Your task to perform on an android device: turn off smart reply in the gmail app Image 0: 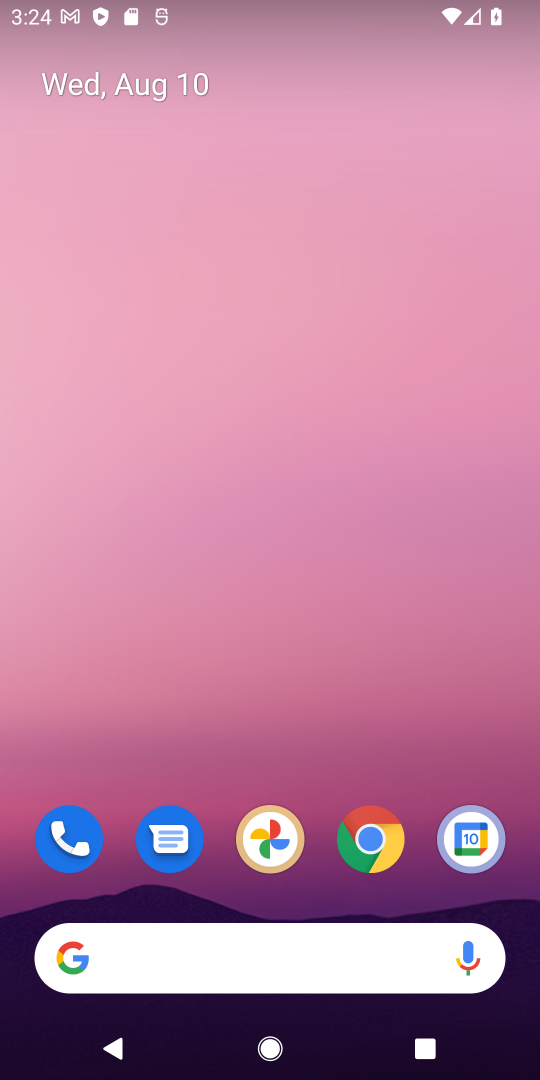
Step 0: drag from (264, 736) to (338, 0)
Your task to perform on an android device: turn off smart reply in the gmail app Image 1: 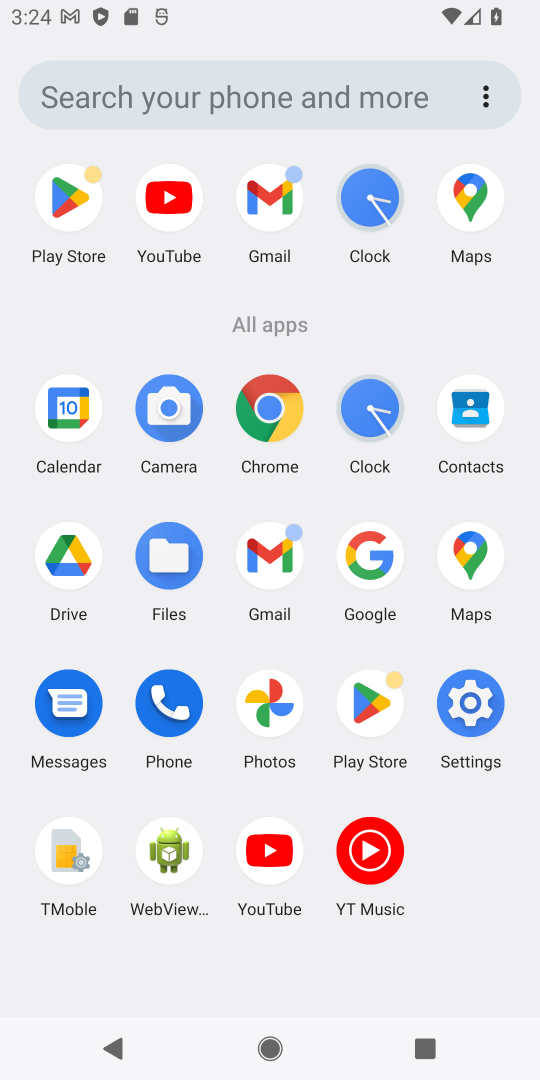
Step 1: click (269, 196)
Your task to perform on an android device: turn off smart reply in the gmail app Image 2: 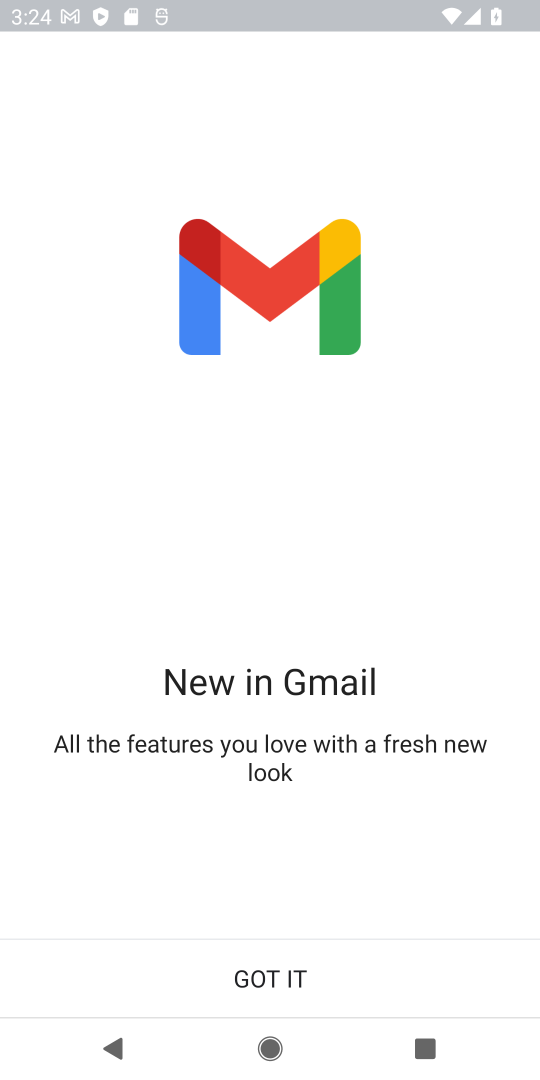
Step 2: click (267, 971)
Your task to perform on an android device: turn off smart reply in the gmail app Image 3: 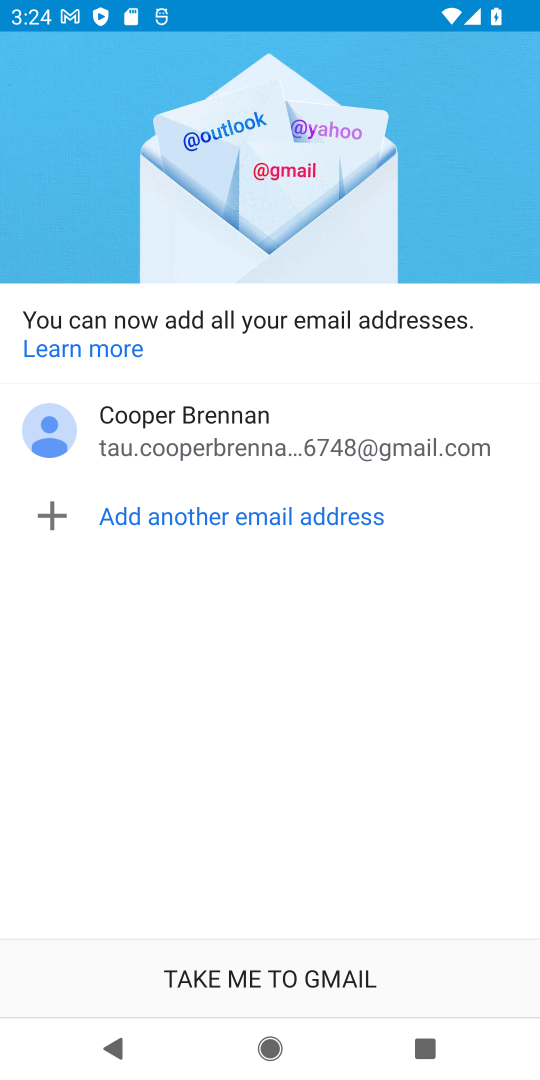
Step 3: click (267, 971)
Your task to perform on an android device: turn off smart reply in the gmail app Image 4: 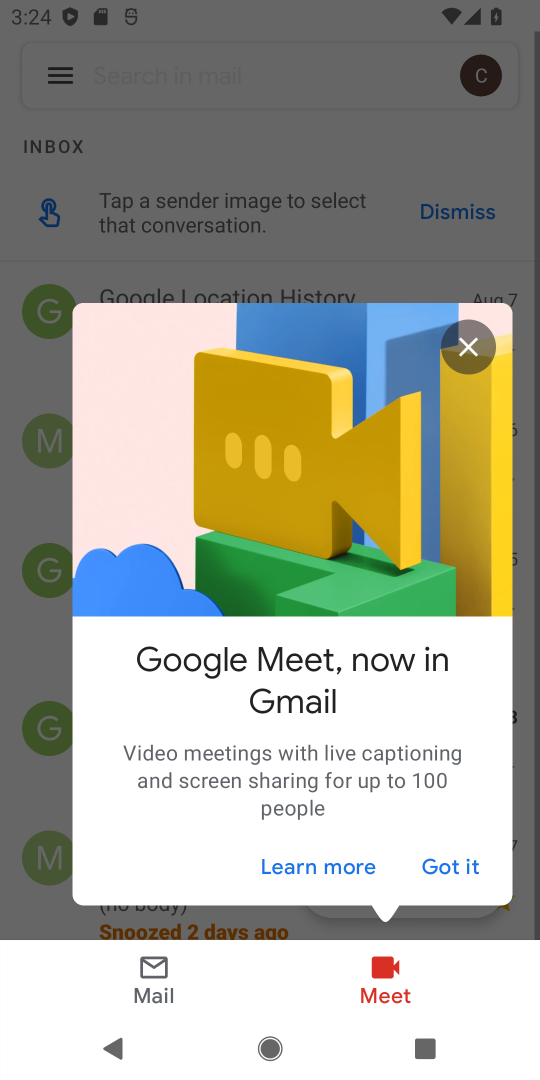
Step 4: click (442, 859)
Your task to perform on an android device: turn off smart reply in the gmail app Image 5: 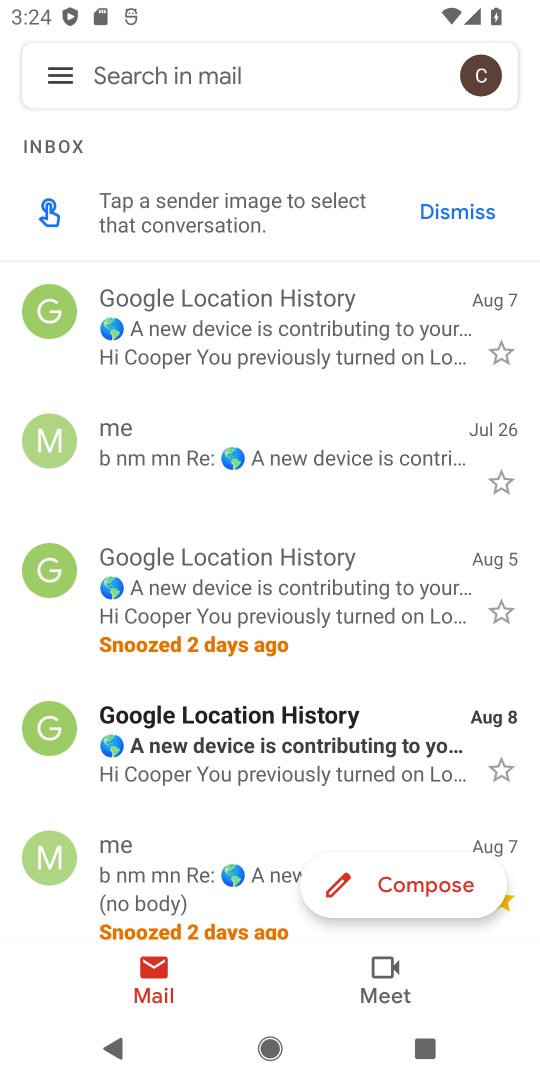
Step 5: click (62, 69)
Your task to perform on an android device: turn off smart reply in the gmail app Image 6: 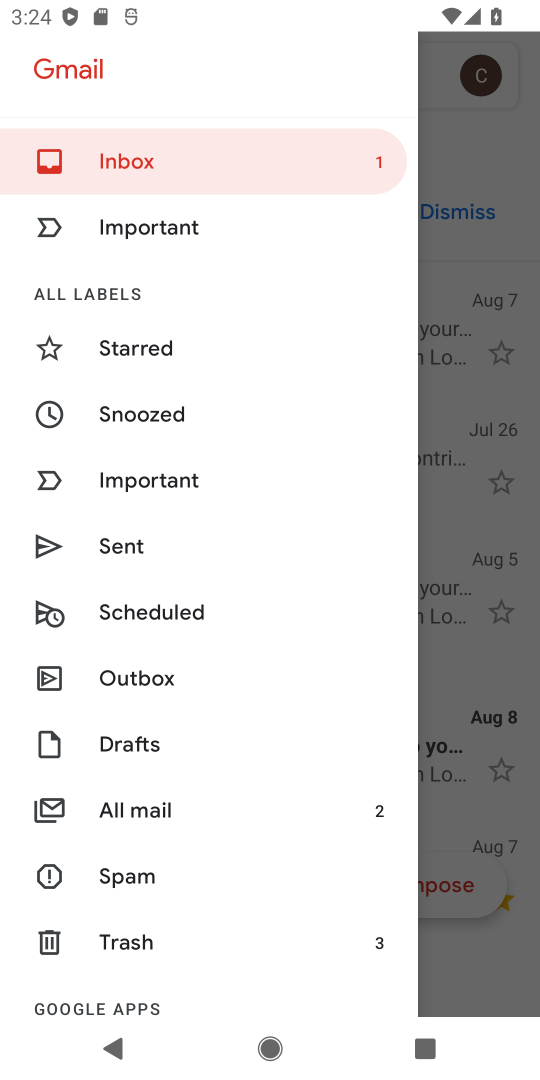
Step 6: drag from (210, 829) to (220, 220)
Your task to perform on an android device: turn off smart reply in the gmail app Image 7: 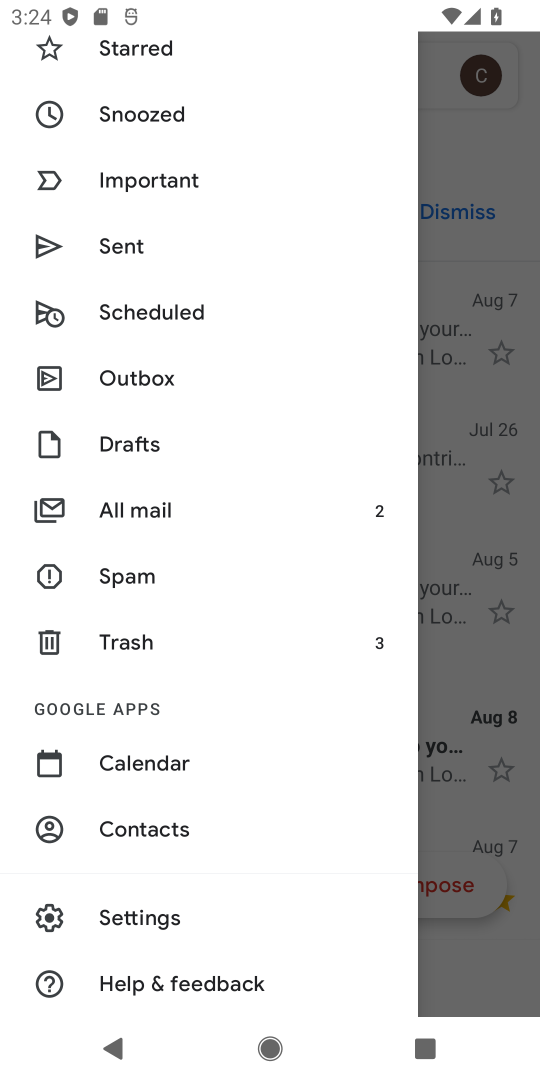
Step 7: click (155, 908)
Your task to perform on an android device: turn off smart reply in the gmail app Image 8: 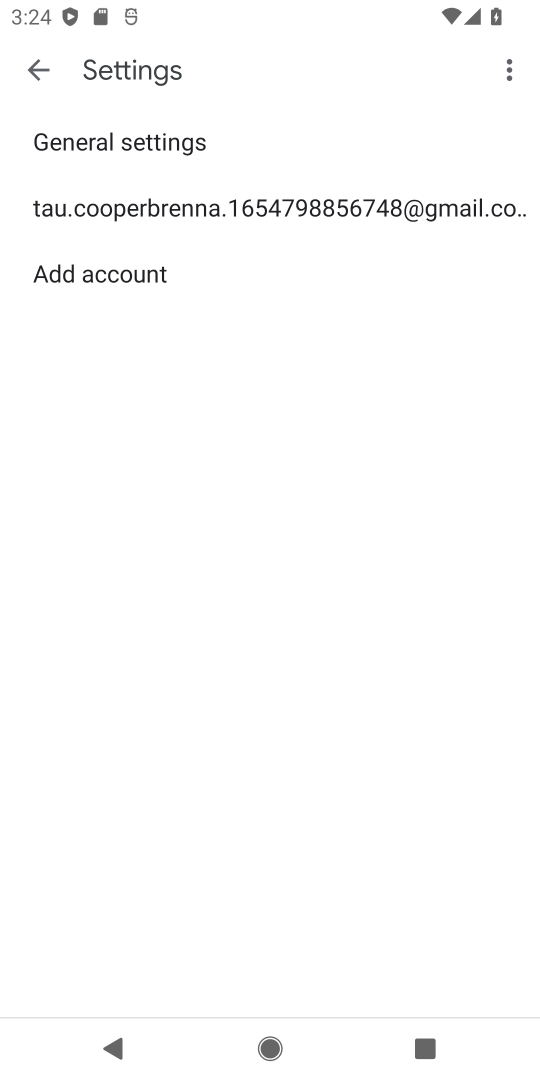
Step 8: click (345, 219)
Your task to perform on an android device: turn off smart reply in the gmail app Image 9: 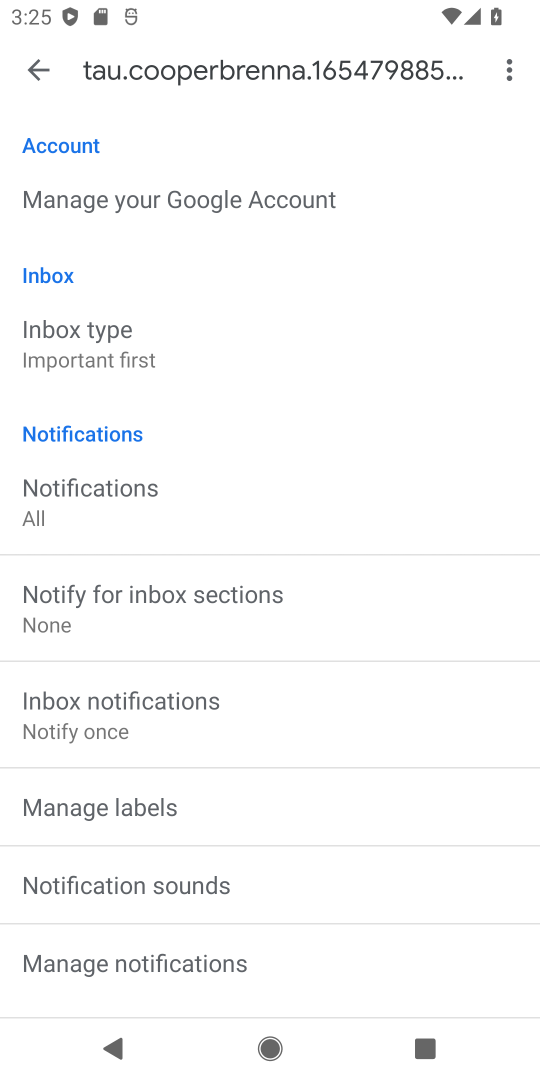
Step 9: drag from (301, 904) to (295, 1)
Your task to perform on an android device: turn off smart reply in the gmail app Image 10: 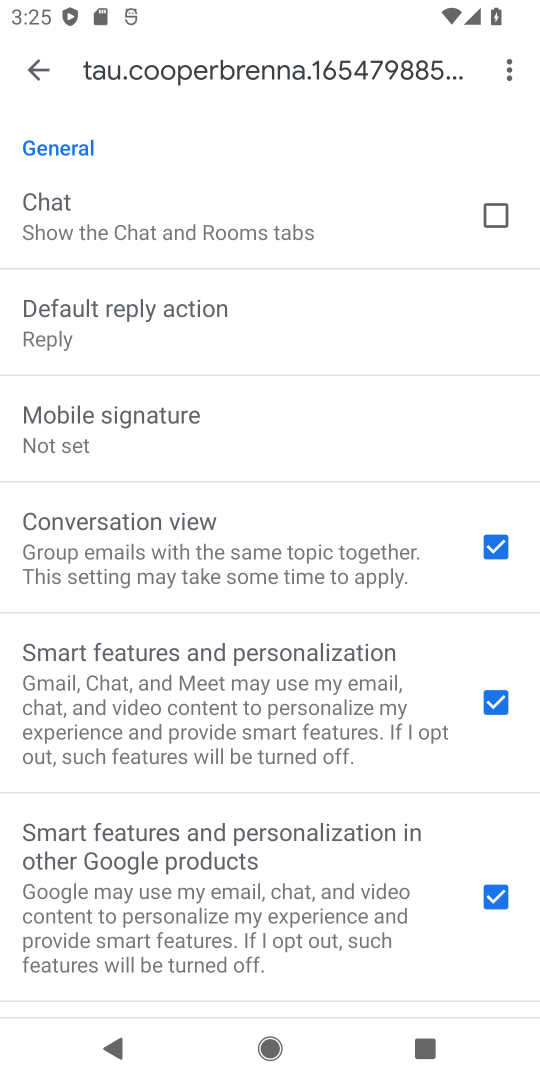
Step 10: drag from (272, 894) to (308, 288)
Your task to perform on an android device: turn off smart reply in the gmail app Image 11: 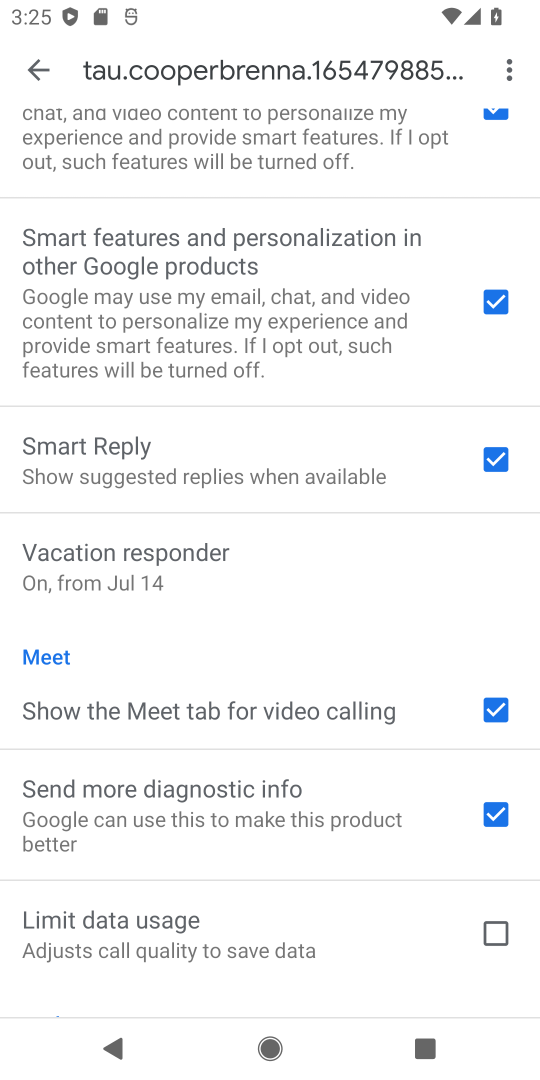
Step 11: click (489, 453)
Your task to perform on an android device: turn off smart reply in the gmail app Image 12: 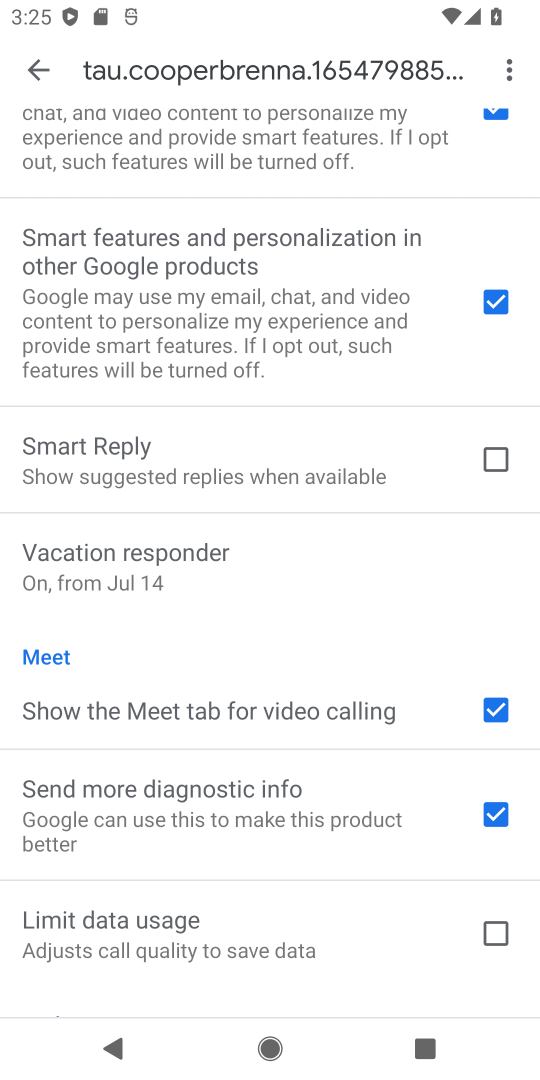
Step 12: task complete